Your task to perform on an android device: open wifi settings Image 0: 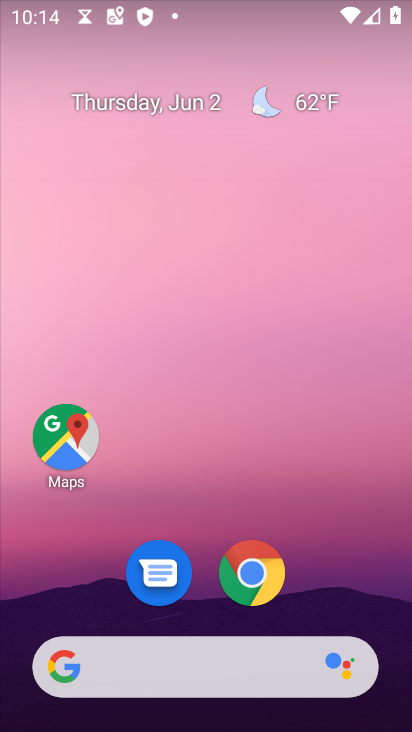
Step 0: drag from (347, 587) to (242, 18)
Your task to perform on an android device: open wifi settings Image 1: 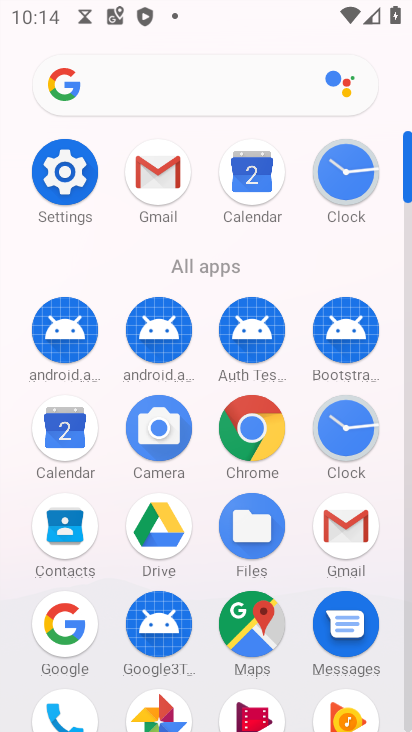
Step 1: click (67, 174)
Your task to perform on an android device: open wifi settings Image 2: 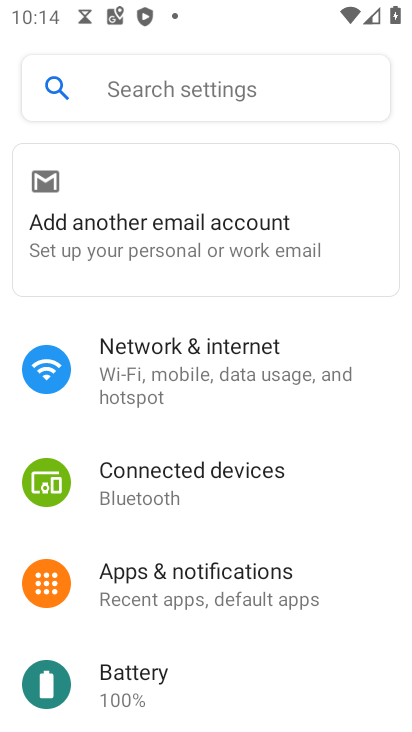
Step 2: click (202, 386)
Your task to perform on an android device: open wifi settings Image 3: 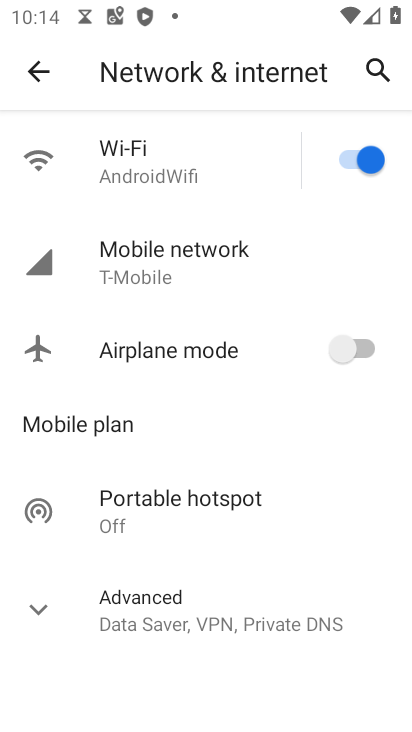
Step 3: click (144, 147)
Your task to perform on an android device: open wifi settings Image 4: 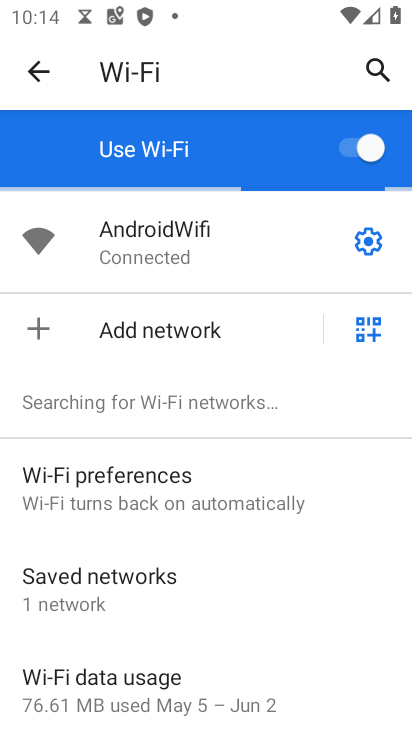
Step 4: click (373, 241)
Your task to perform on an android device: open wifi settings Image 5: 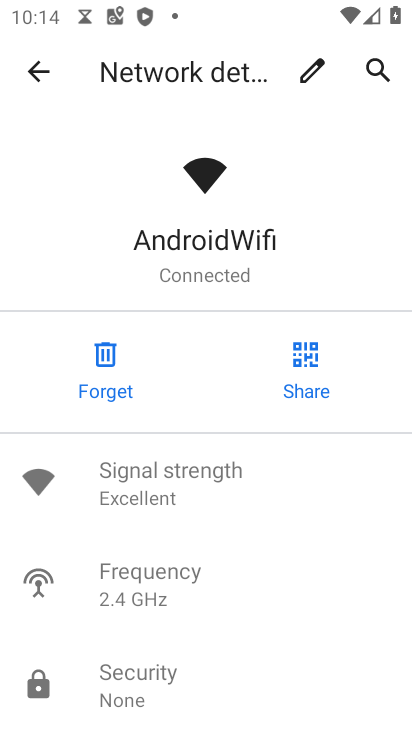
Step 5: task complete